Your task to perform on an android device: see creations saved in the google photos Image 0: 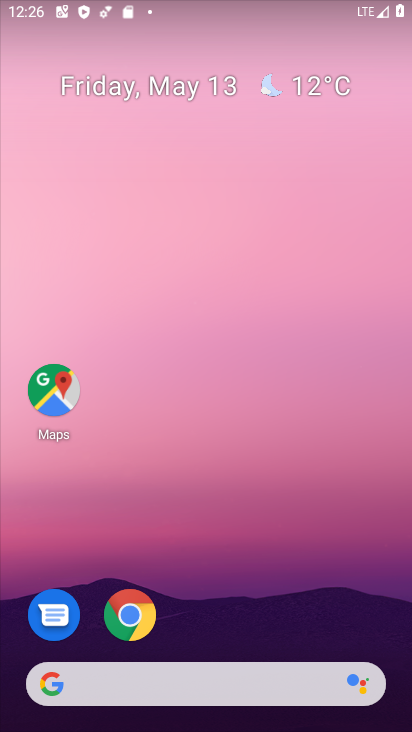
Step 0: drag from (211, 601) to (219, 283)
Your task to perform on an android device: see creations saved in the google photos Image 1: 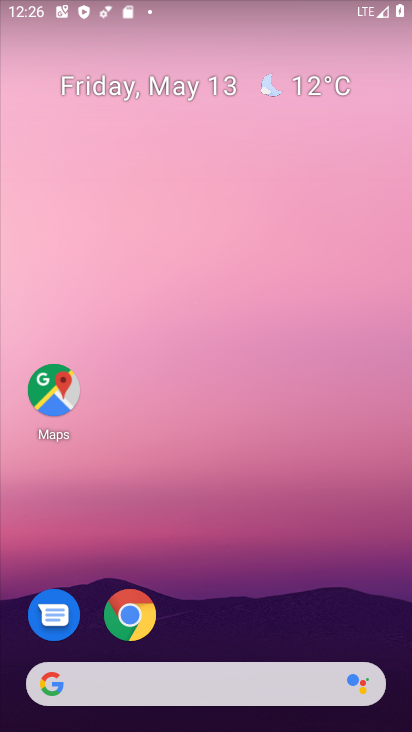
Step 1: drag from (227, 651) to (243, 200)
Your task to perform on an android device: see creations saved in the google photos Image 2: 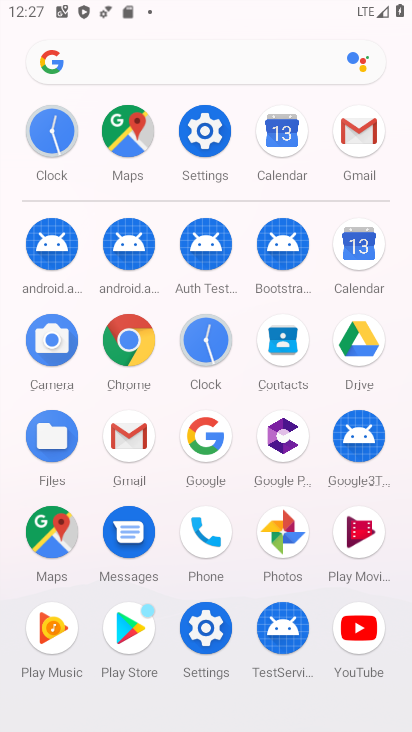
Step 2: click (275, 530)
Your task to perform on an android device: see creations saved in the google photos Image 3: 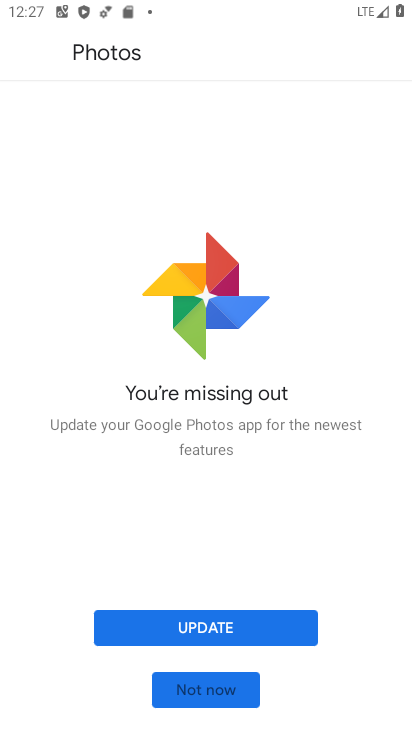
Step 3: click (290, 417)
Your task to perform on an android device: see creations saved in the google photos Image 4: 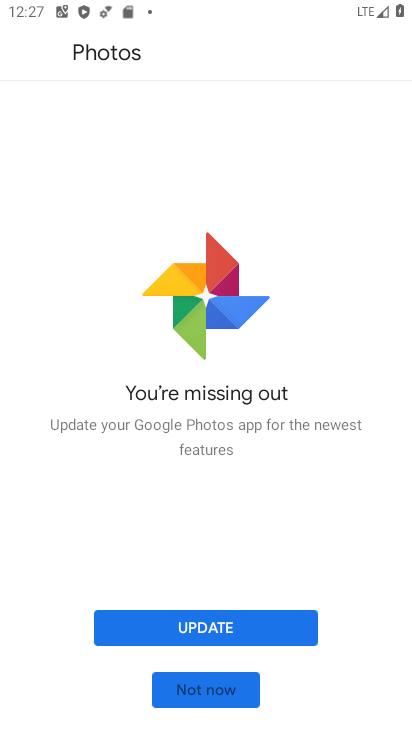
Step 4: click (207, 693)
Your task to perform on an android device: see creations saved in the google photos Image 5: 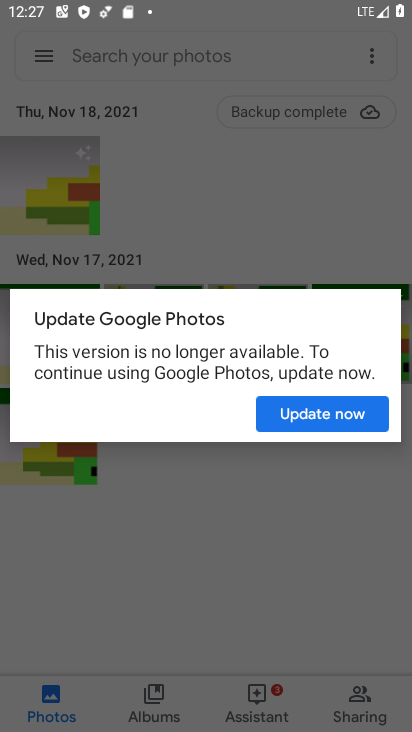
Step 5: click (293, 424)
Your task to perform on an android device: see creations saved in the google photos Image 6: 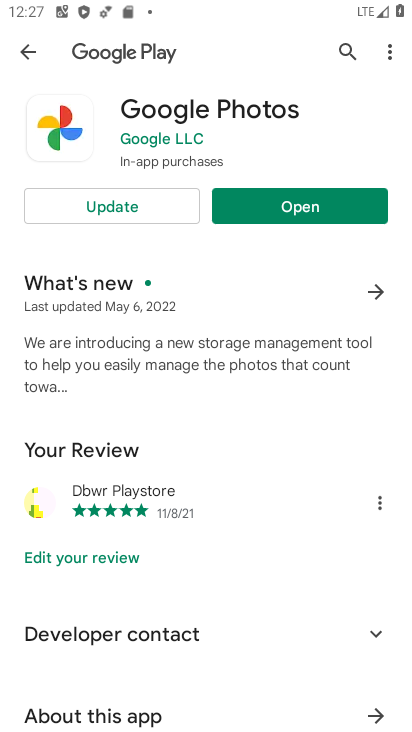
Step 6: click (270, 204)
Your task to perform on an android device: see creations saved in the google photos Image 7: 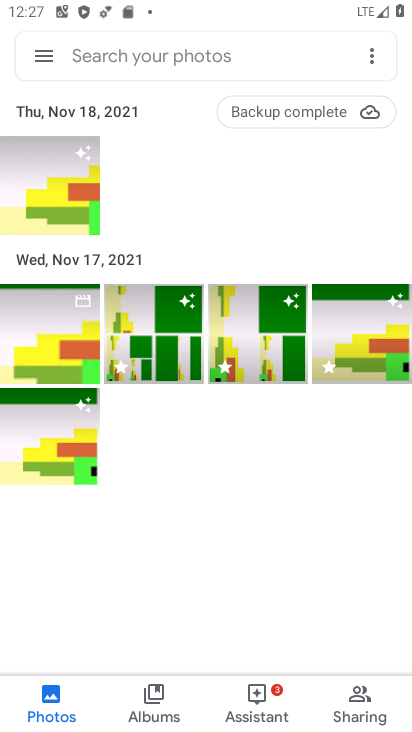
Step 7: click (100, 48)
Your task to perform on an android device: see creations saved in the google photos Image 8: 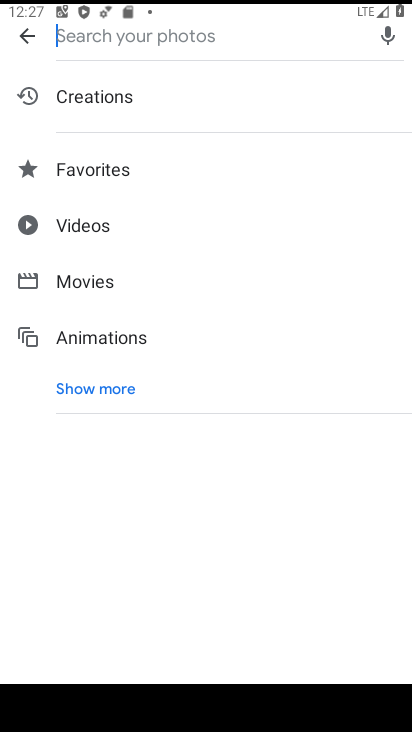
Step 8: click (110, 108)
Your task to perform on an android device: see creations saved in the google photos Image 9: 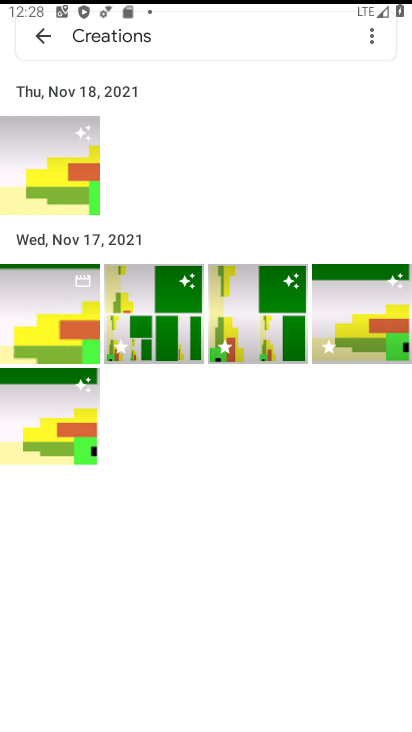
Step 9: task complete